Your task to perform on an android device: What's on my calendar tomorrow? Image 0: 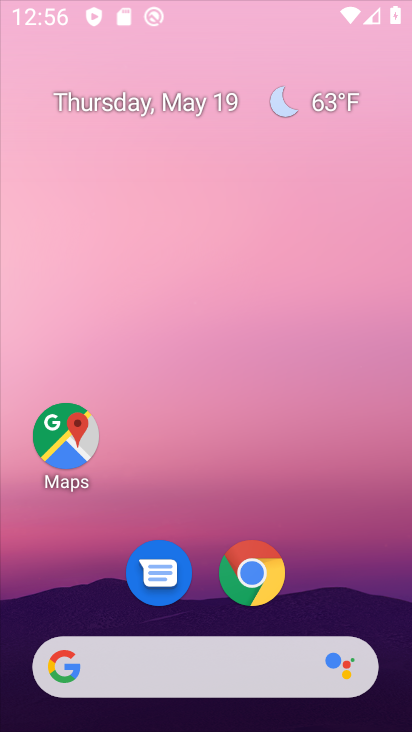
Step 0: drag from (320, 604) to (309, 238)
Your task to perform on an android device: What's on my calendar tomorrow? Image 1: 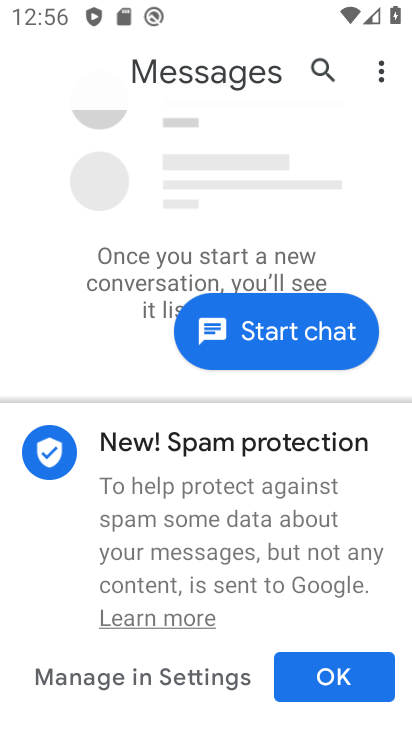
Step 1: press home button
Your task to perform on an android device: What's on my calendar tomorrow? Image 2: 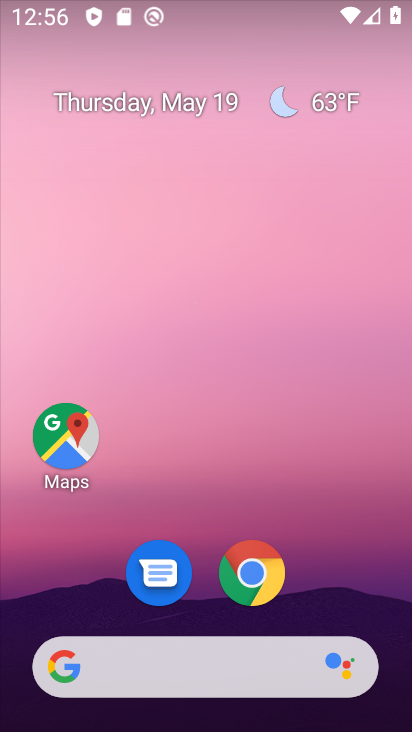
Step 2: drag from (330, 597) to (385, 204)
Your task to perform on an android device: What's on my calendar tomorrow? Image 3: 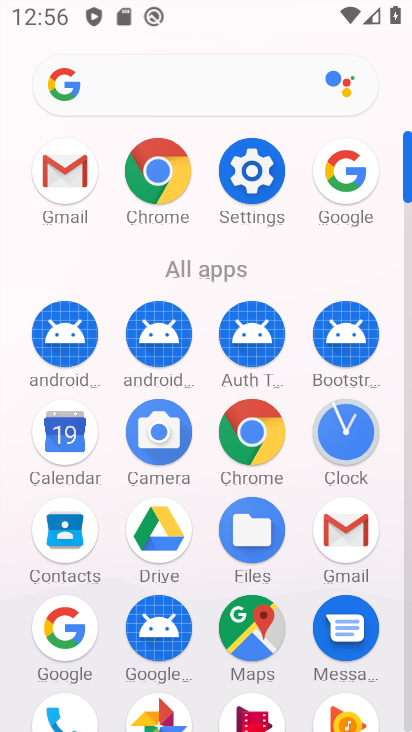
Step 3: click (57, 445)
Your task to perform on an android device: What's on my calendar tomorrow? Image 4: 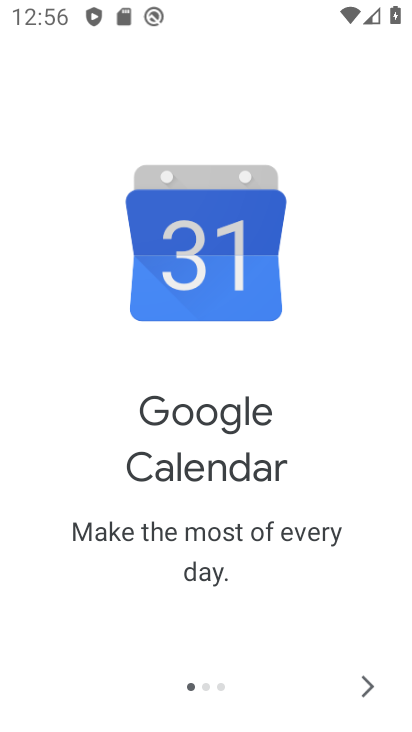
Step 4: click (348, 669)
Your task to perform on an android device: What's on my calendar tomorrow? Image 5: 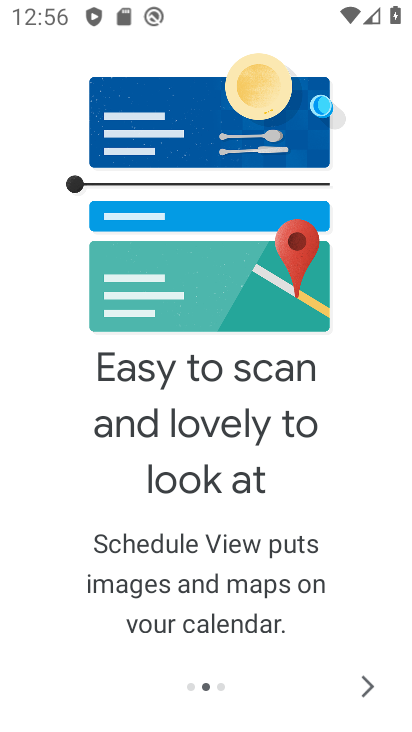
Step 5: click (356, 676)
Your task to perform on an android device: What's on my calendar tomorrow? Image 6: 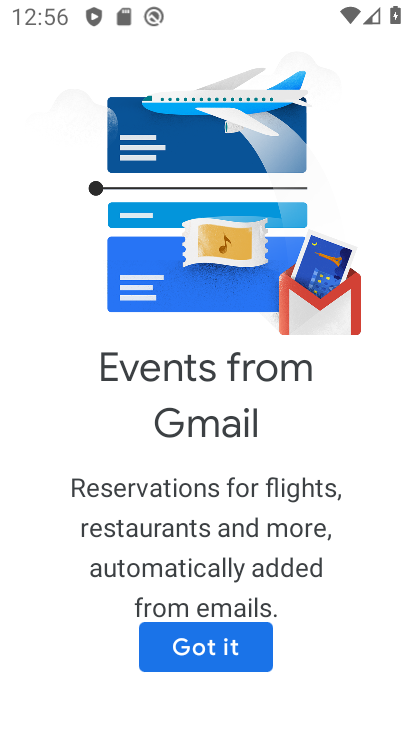
Step 6: click (230, 640)
Your task to perform on an android device: What's on my calendar tomorrow? Image 7: 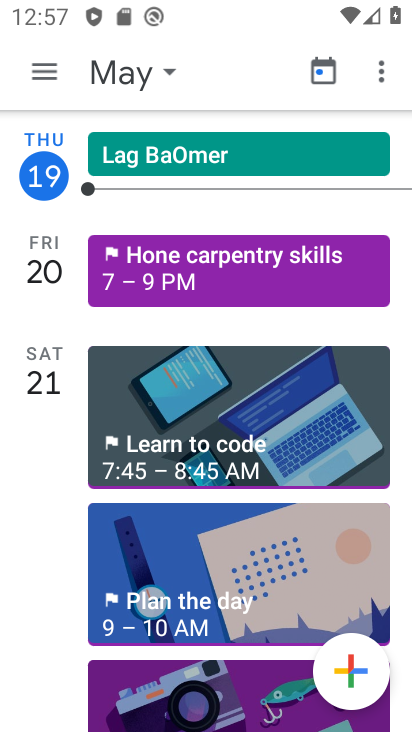
Step 7: click (38, 64)
Your task to perform on an android device: What's on my calendar tomorrow? Image 8: 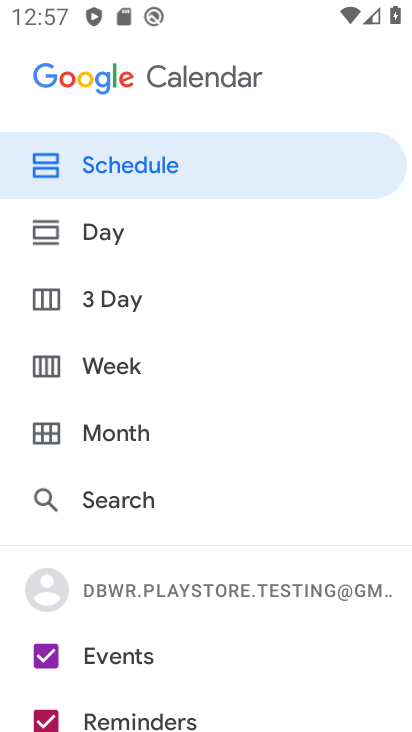
Step 8: click (120, 419)
Your task to perform on an android device: What's on my calendar tomorrow? Image 9: 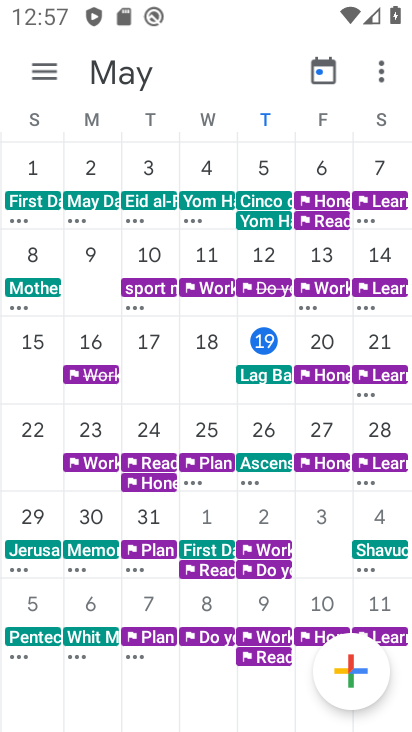
Step 9: click (310, 347)
Your task to perform on an android device: What's on my calendar tomorrow? Image 10: 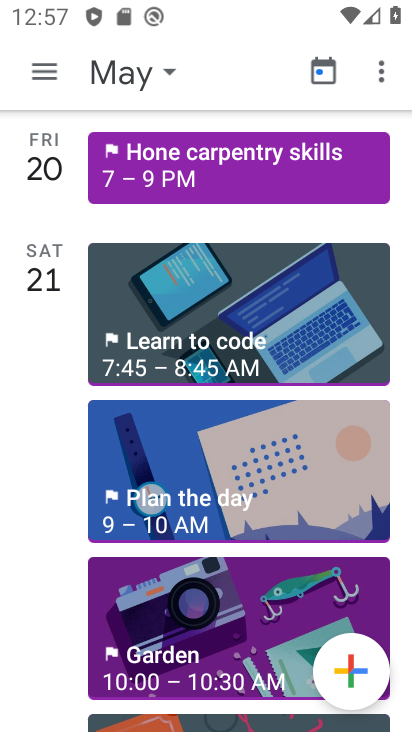
Step 10: task complete